Your task to perform on an android device: Open Google Chrome and open the bookmarks view Image 0: 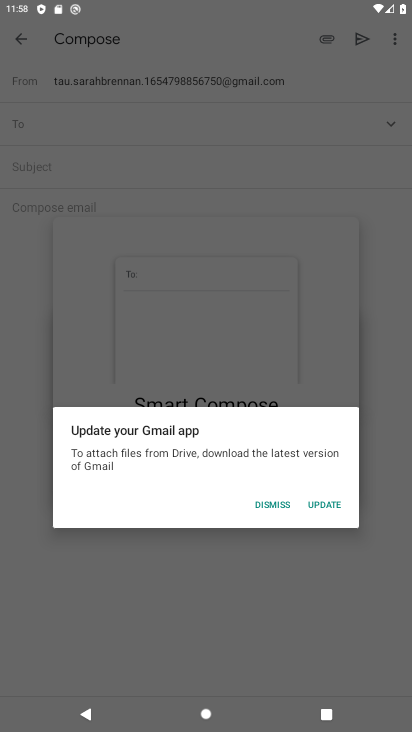
Step 0: press home button
Your task to perform on an android device: Open Google Chrome and open the bookmarks view Image 1: 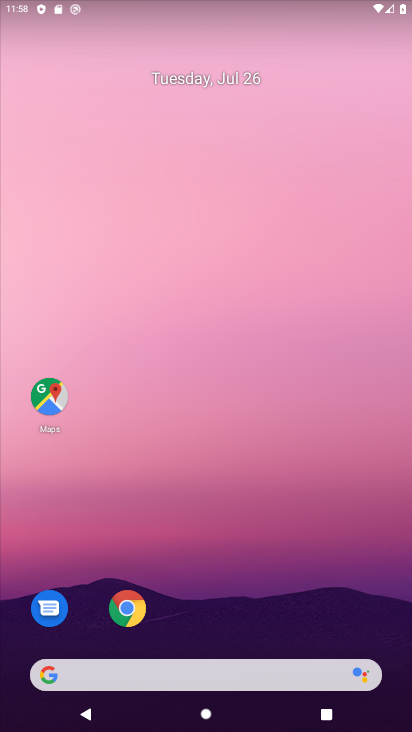
Step 1: drag from (365, 614) to (371, 179)
Your task to perform on an android device: Open Google Chrome and open the bookmarks view Image 2: 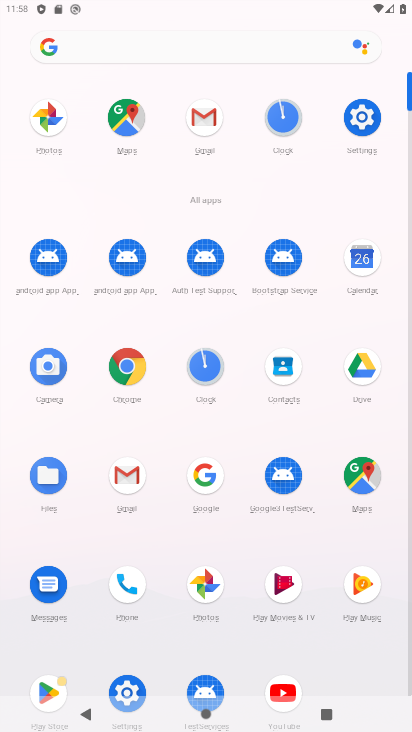
Step 2: click (125, 369)
Your task to perform on an android device: Open Google Chrome and open the bookmarks view Image 3: 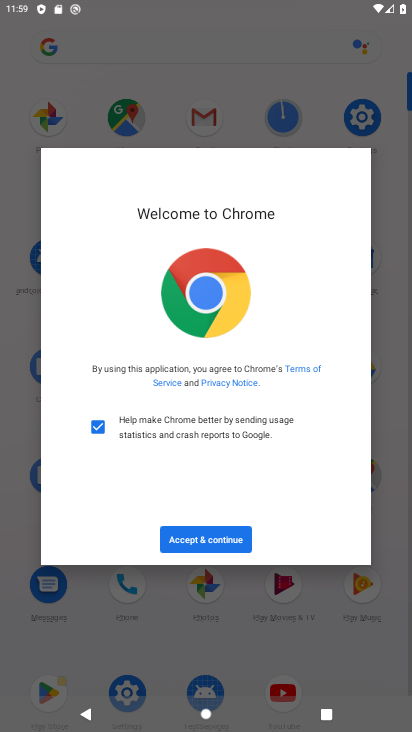
Step 3: click (198, 543)
Your task to perform on an android device: Open Google Chrome and open the bookmarks view Image 4: 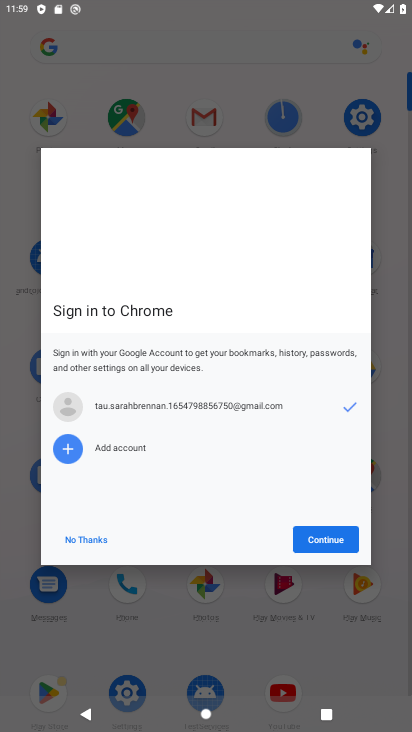
Step 4: click (330, 533)
Your task to perform on an android device: Open Google Chrome and open the bookmarks view Image 5: 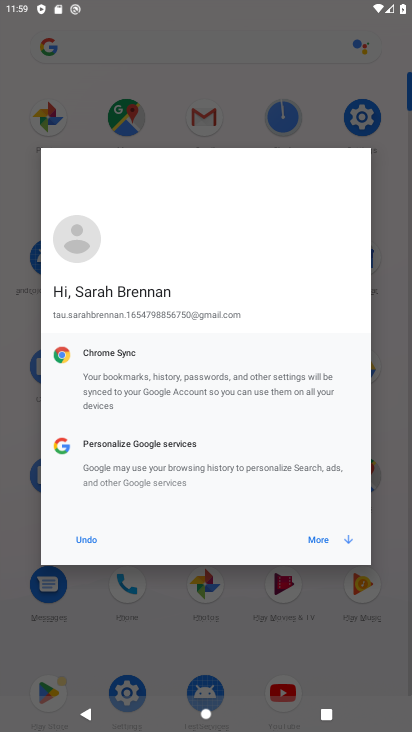
Step 5: click (330, 533)
Your task to perform on an android device: Open Google Chrome and open the bookmarks view Image 6: 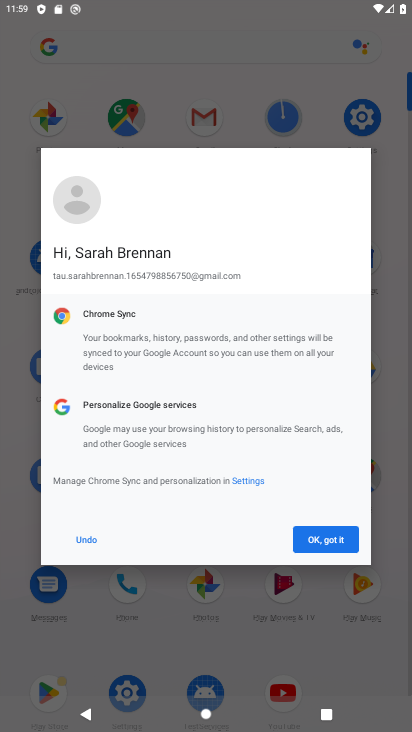
Step 6: click (330, 533)
Your task to perform on an android device: Open Google Chrome and open the bookmarks view Image 7: 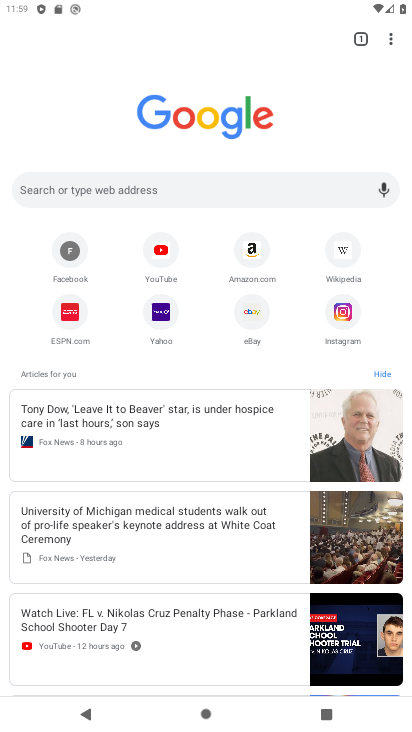
Step 7: click (391, 42)
Your task to perform on an android device: Open Google Chrome and open the bookmarks view Image 8: 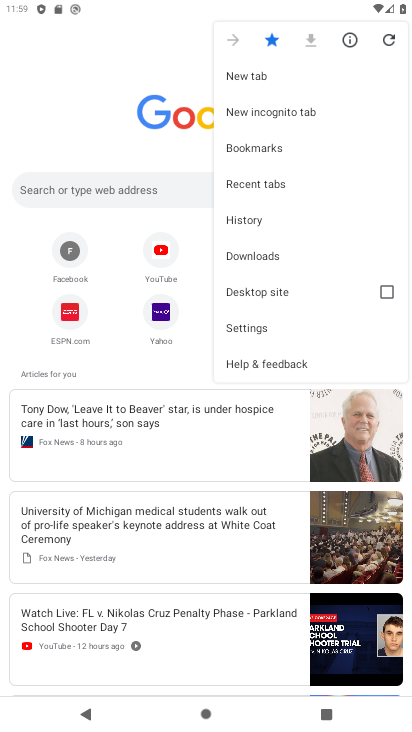
Step 8: click (304, 148)
Your task to perform on an android device: Open Google Chrome and open the bookmarks view Image 9: 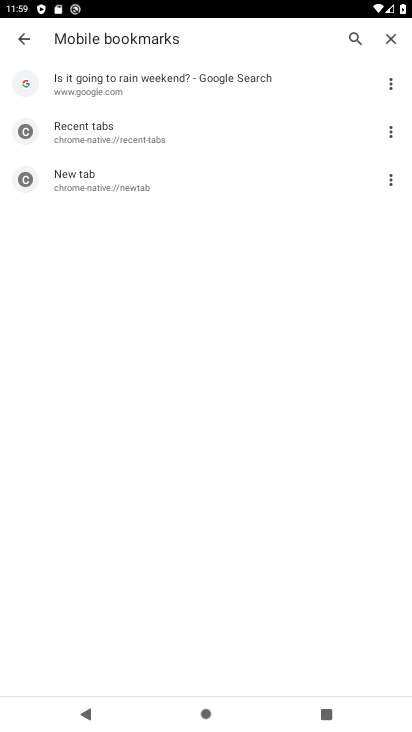
Step 9: task complete